Your task to perform on an android device: Do I have any events this weekend? Image 0: 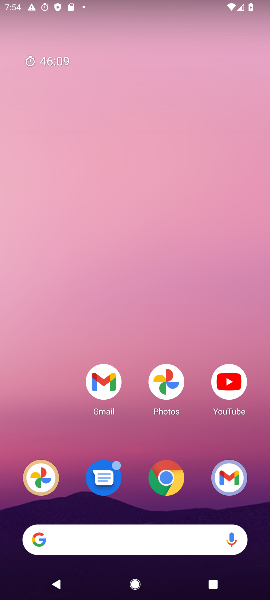
Step 0: drag from (136, 506) to (143, 215)
Your task to perform on an android device: Do I have any events this weekend? Image 1: 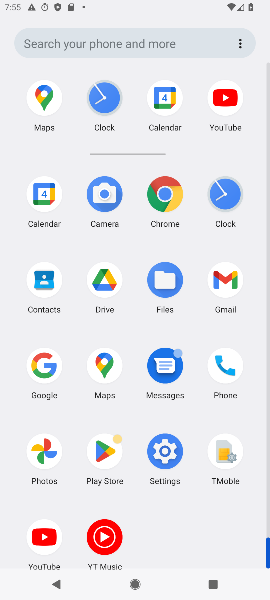
Step 1: click (35, 192)
Your task to perform on an android device: Do I have any events this weekend? Image 2: 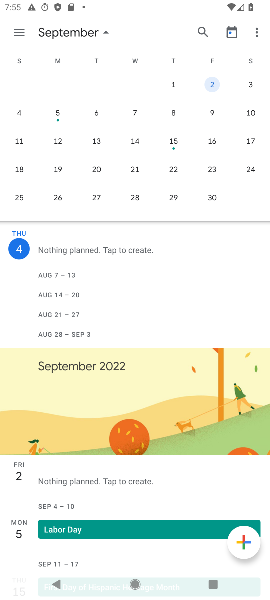
Step 2: click (238, 32)
Your task to perform on an android device: Do I have any events this weekend? Image 3: 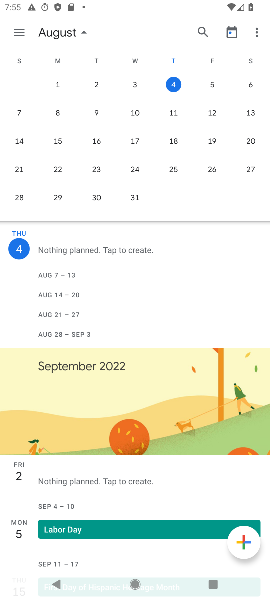
Step 3: click (253, 91)
Your task to perform on an android device: Do I have any events this weekend? Image 4: 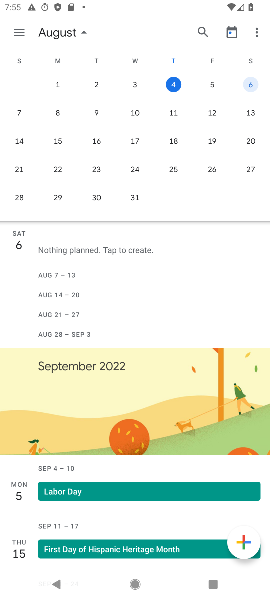
Step 4: task complete